Your task to perform on an android device: change the clock display to analog Image 0: 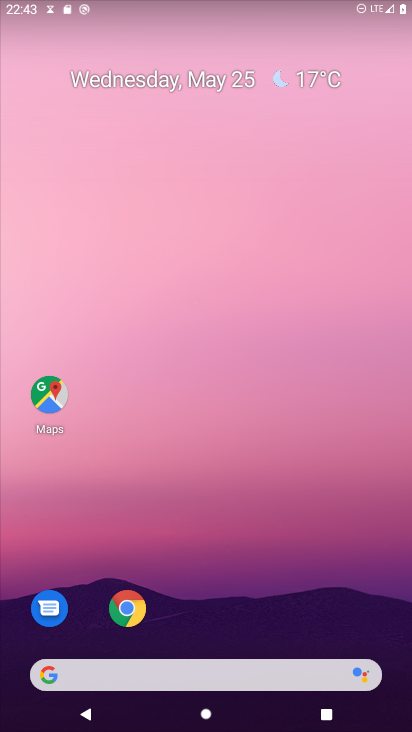
Step 0: drag from (237, 585) to (185, 41)
Your task to perform on an android device: change the clock display to analog Image 1: 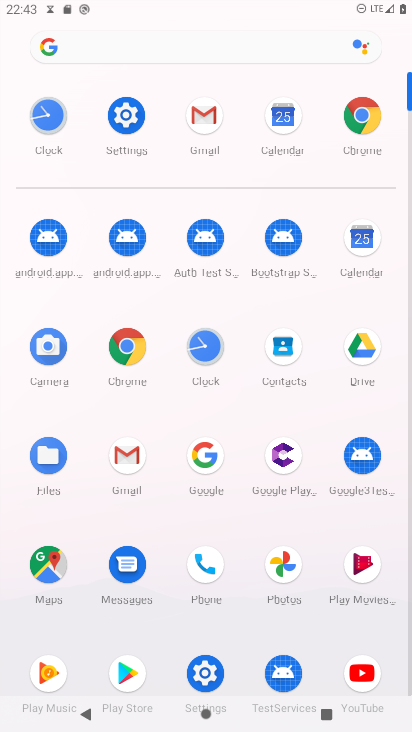
Step 1: click (139, 117)
Your task to perform on an android device: change the clock display to analog Image 2: 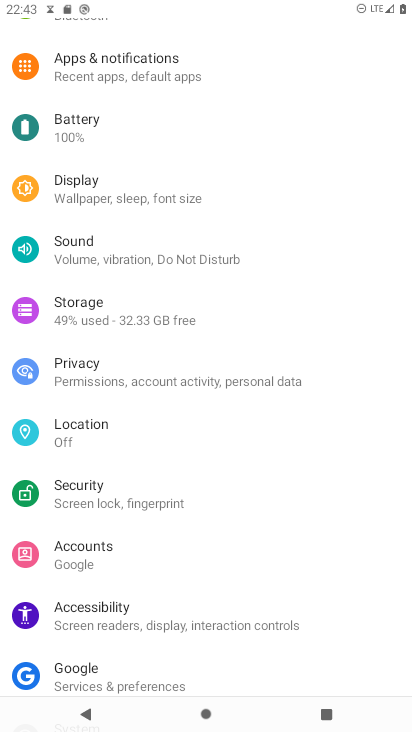
Step 2: press home button
Your task to perform on an android device: change the clock display to analog Image 3: 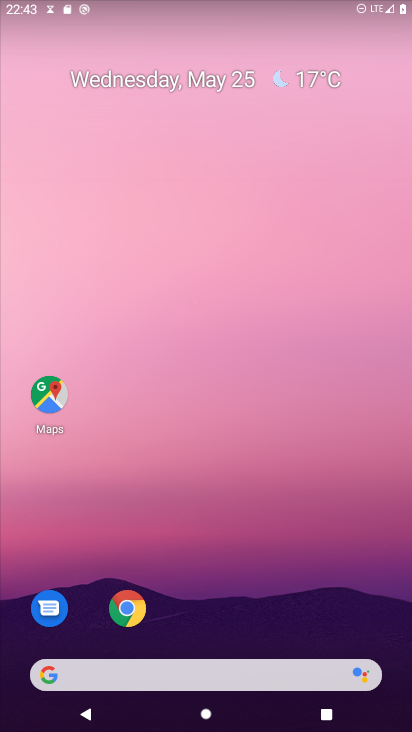
Step 3: drag from (261, 420) to (206, 19)
Your task to perform on an android device: change the clock display to analog Image 4: 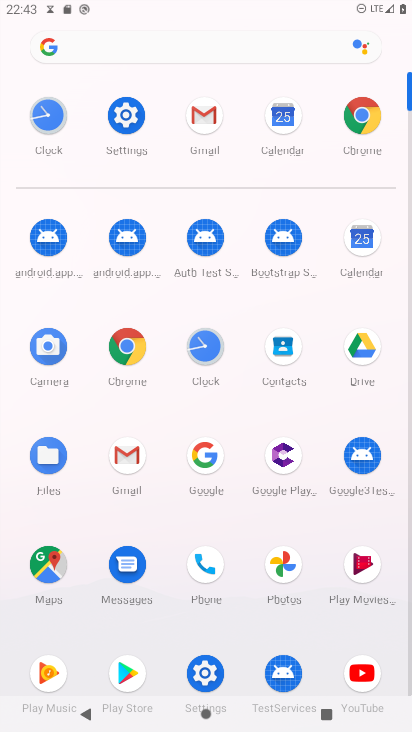
Step 4: click (206, 350)
Your task to perform on an android device: change the clock display to analog Image 5: 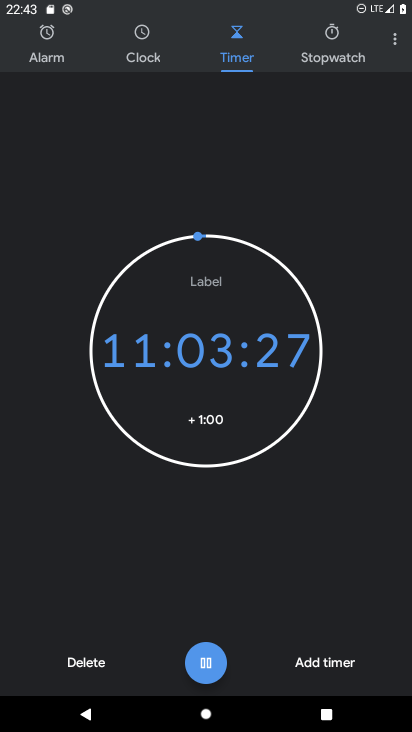
Step 5: click (398, 36)
Your task to perform on an android device: change the clock display to analog Image 6: 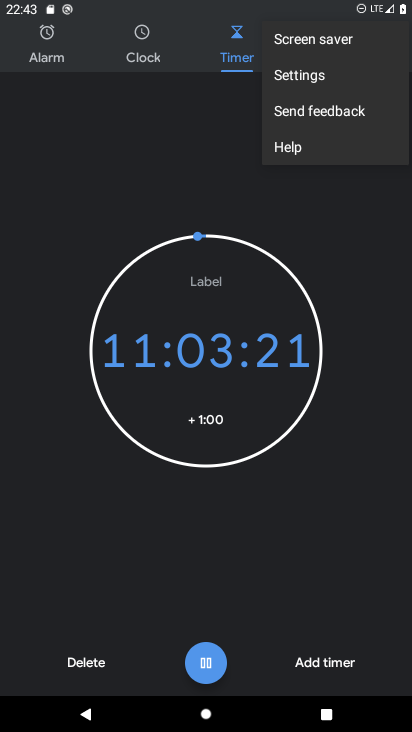
Step 6: click (313, 75)
Your task to perform on an android device: change the clock display to analog Image 7: 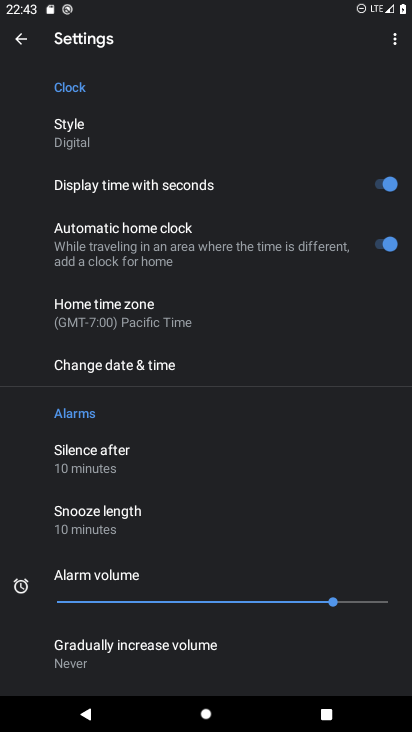
Step 7: click (178, 131)
Your task to perform on an android device: change the clock display to analog Image 8: 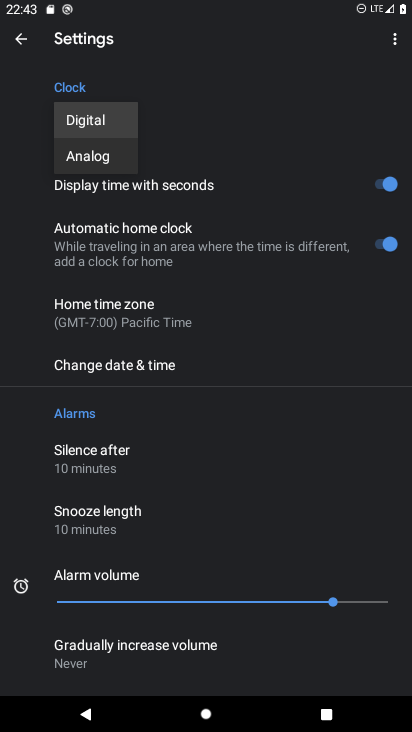
Step 8: click (113, 157)
Your task to perform on an android device: change the clock display to analog Image 9: 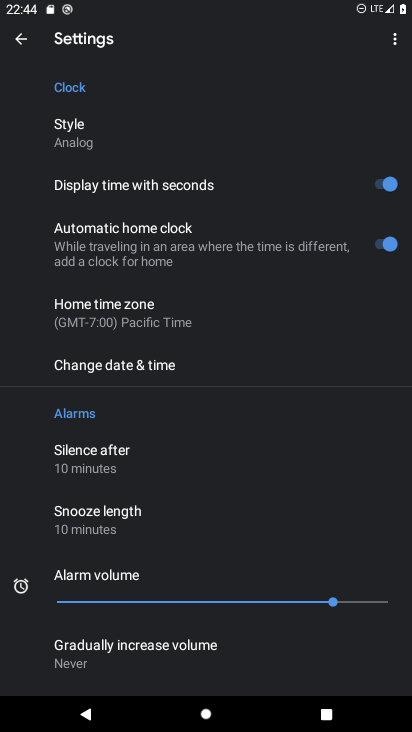
Step 9: task complete